Your task to perform on an android device: What's the weather going to be tomorrow? Image 0: 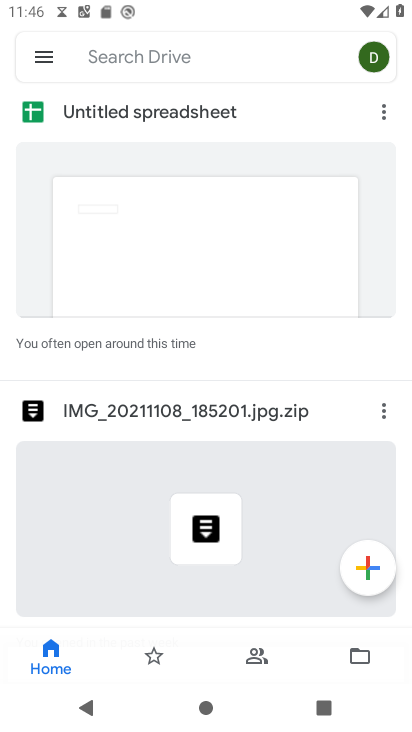
Step 0: press home button
Your task to perform on an android device: What's the weather going to be tomorrow? Image 1: 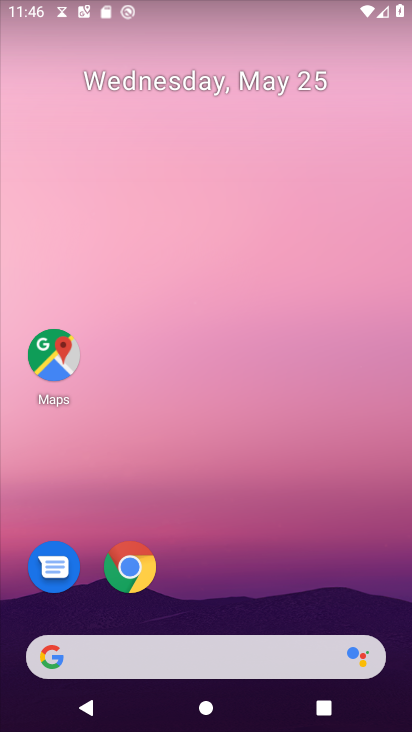
Step 1: click (120, 657)
Your task to perform on an android device: What's the weather going to be tomorrow? Image 2: 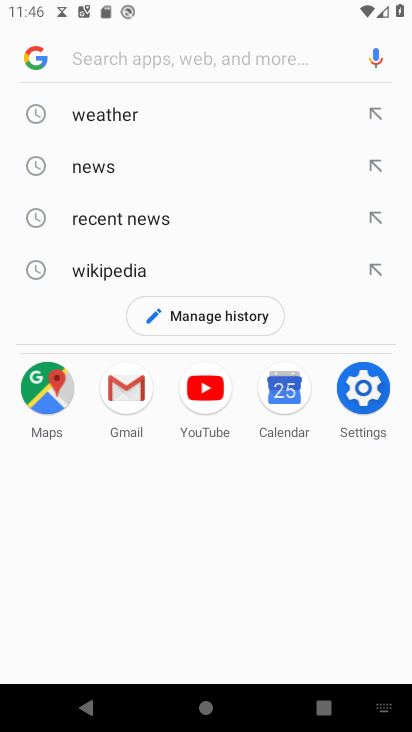
Step 2: click (134, 130)
Your task to perform on an android device: What's the weather going to be tomorrow? Image 3: 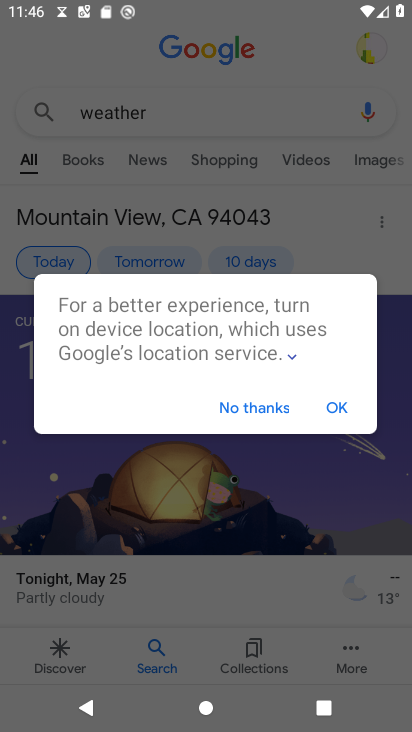
Step 3: click (153, 265)
Your task to perform on an android device: What's the weather going to be tomorrow? Image 4: 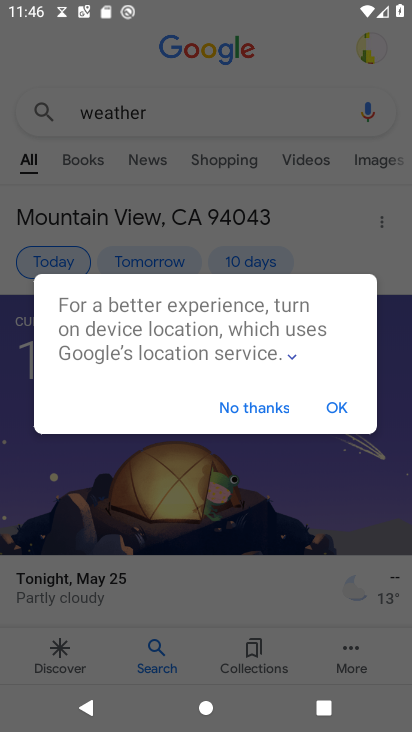
Step 4: click (352, 407)
Your task to perform on an android device: What's the weather going to be tomorrow? Image 5: 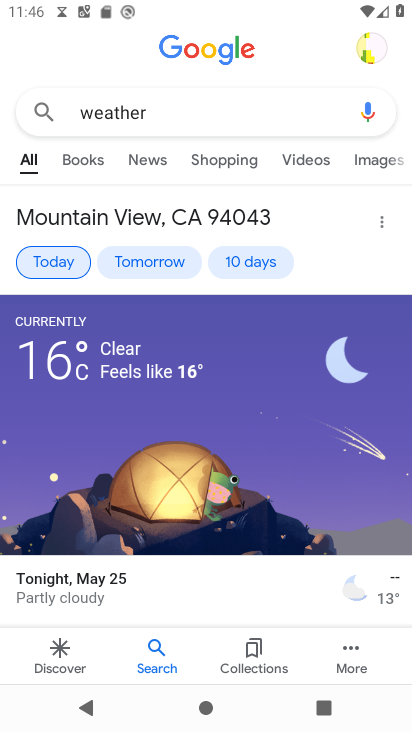
Step 5: click (121, 260)
Your task to perform on an android device: What's the weather going to be tomorrow? Image 6: 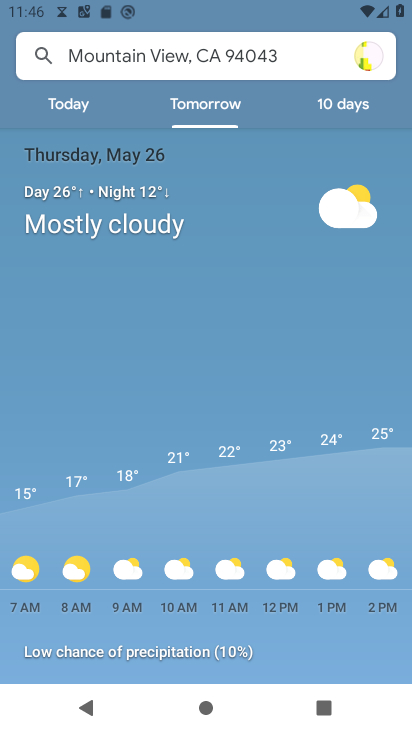
Step 6: task complete